Your task to perform on an android device: toggle show notifications on the lock screen Image 0: 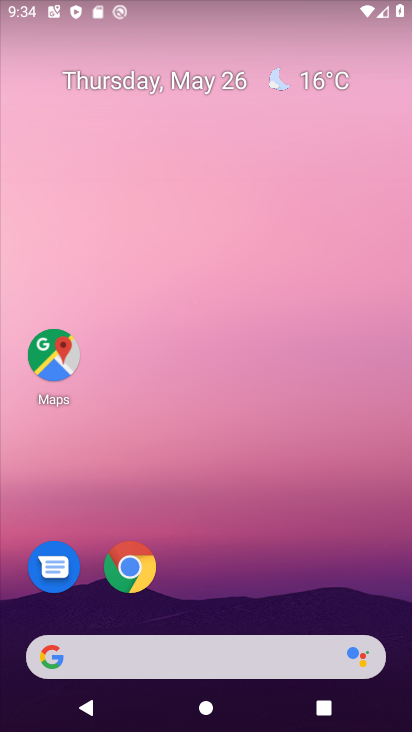
Step 0: drag from (384, 671) to (327, 218)
Your task to perform on an android device: toggle show notifications on the lock screen Image 1: 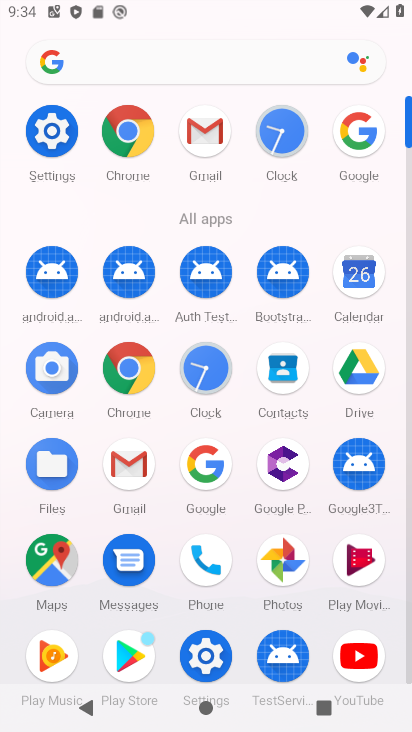
Step 1: click (34, 145)
Your task to perform on an android device: toggle show notifications on the lock screen Image 2: 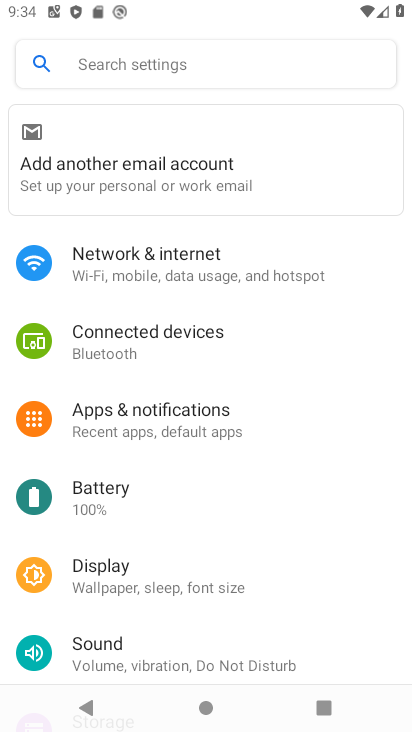
Step 2: click (127, 412)
Your task to perform on an android device: toggle show notifications on the lock screen Image 3: 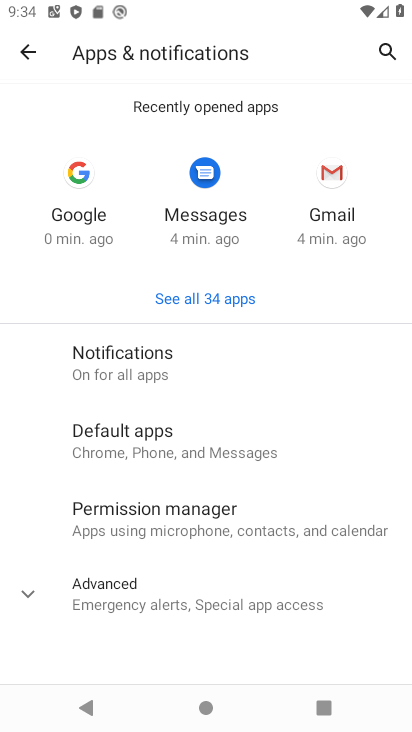
Step 3: click (89, 353)
Your task to perform on an android device: toggle show notifications on the lock screen Image 4: 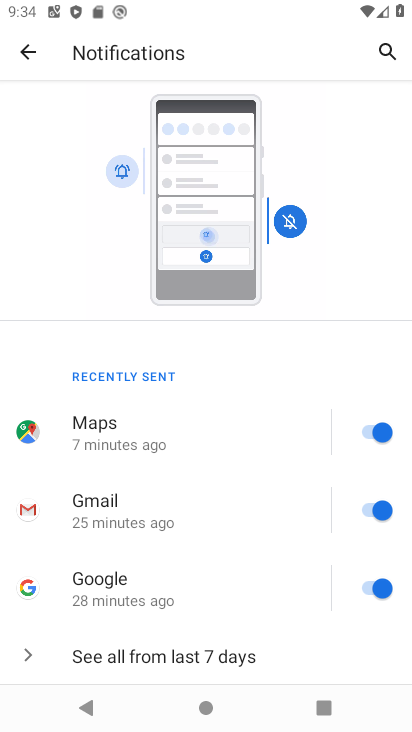
Step 4: drag from (294, 641) to (239, 235)
Your task to perform on an android device: toggle show notifications on the lock screen Image 5: 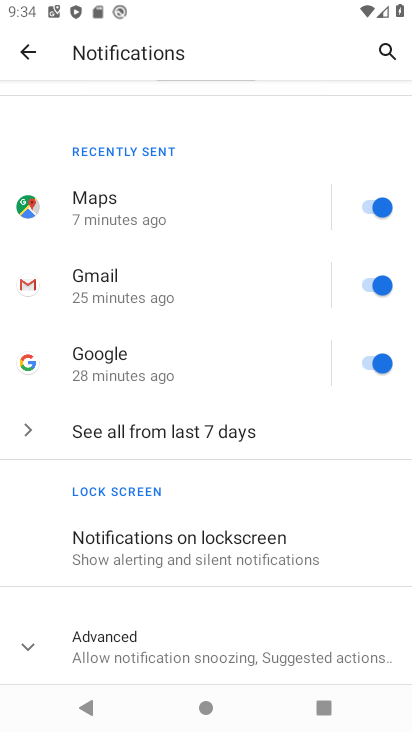
Step 5: click (215, 554)
Your task to perform on an android device: toggle show notifications on the lock screen Image 6: 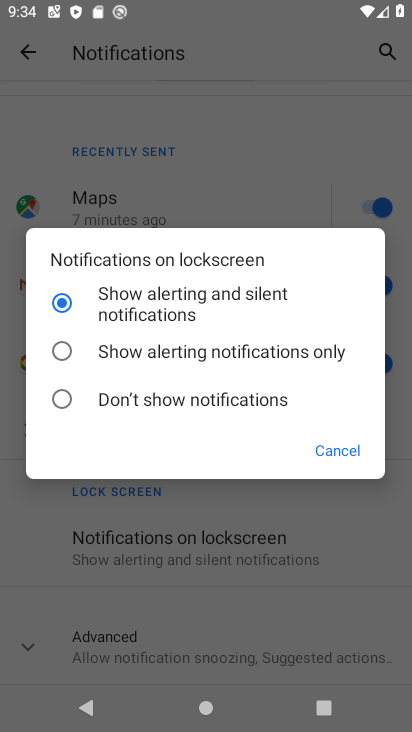
Step 6: click (58, 348)
Your task to perform on an android device: toggle show notifications on the lock screen Image 7: 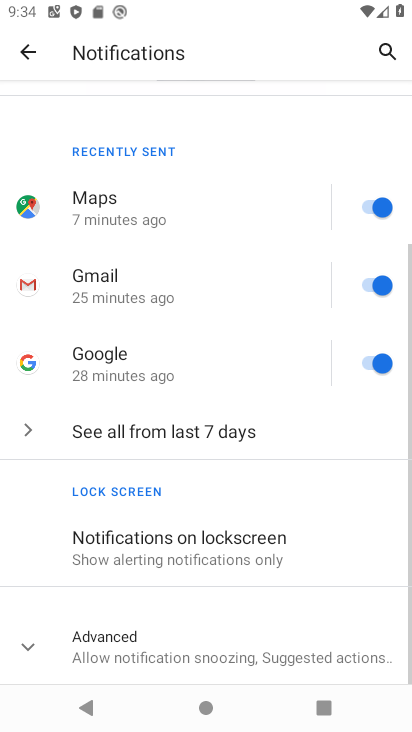
Step 7: task complete